Your task to perform on an android device: What's the weather going to be tomorrow? Image 0: 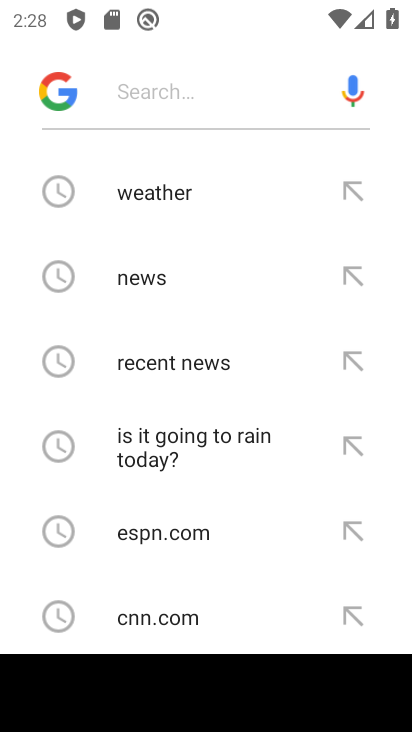
Step 0: click (73, 96)
Your task to perform on an android device: What's the weather going to be tomorrow? Image 1: 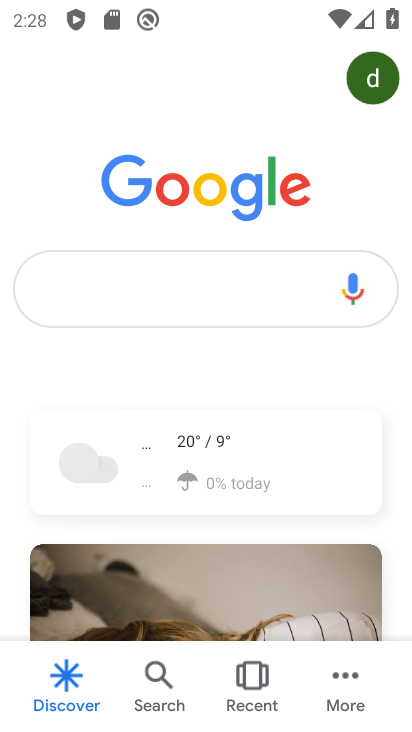
Step 1: click (137, 492)
Your task to perform on an android device: What's the weather going to be tomorrow? Image 2: 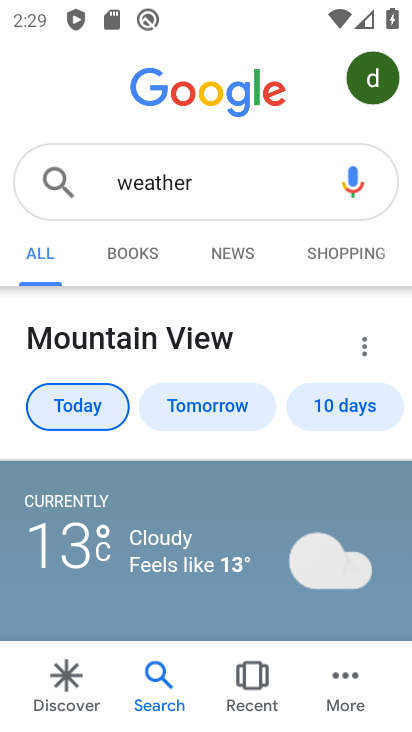
Step 2: click (195, 391)
Your task to perform on an android device: What's the weather going to be tomorrow? Image 3: 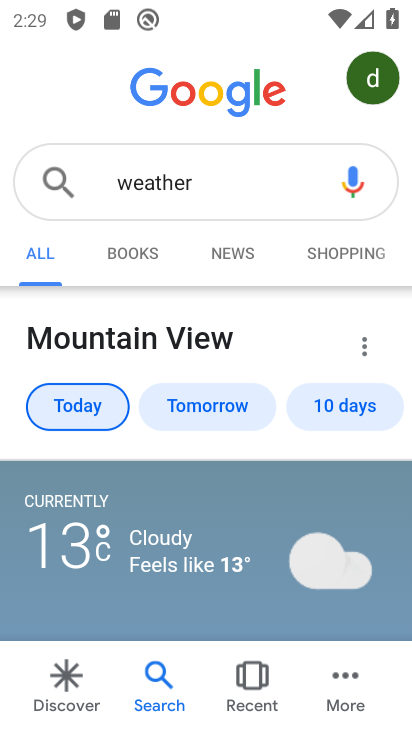
Step 3: click (200, 406)
Your task to perform on an android device: What's the weather going to be tomorrow? Image 4: 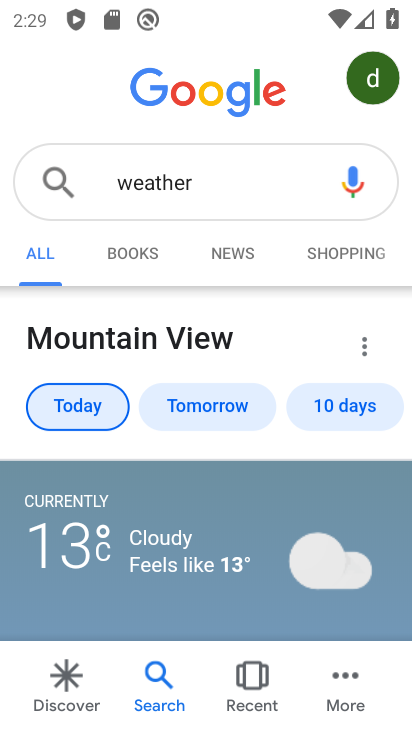
Step 4: click (201, 405)
Your task to perform on an android device: What's the weather going to be tomorrow? Image 5: 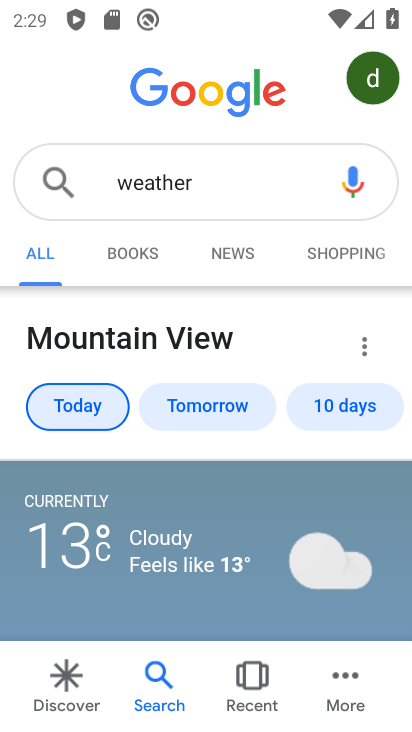
Step 5: task complete